Your task to perform on an android device: Open the stopwatch Image 0: 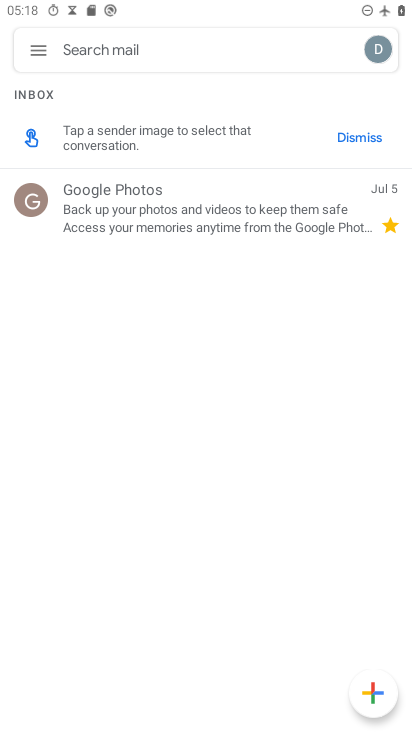
Step 0: press home button
Your task to perform on an android device: Open the stopwatch Image 1: 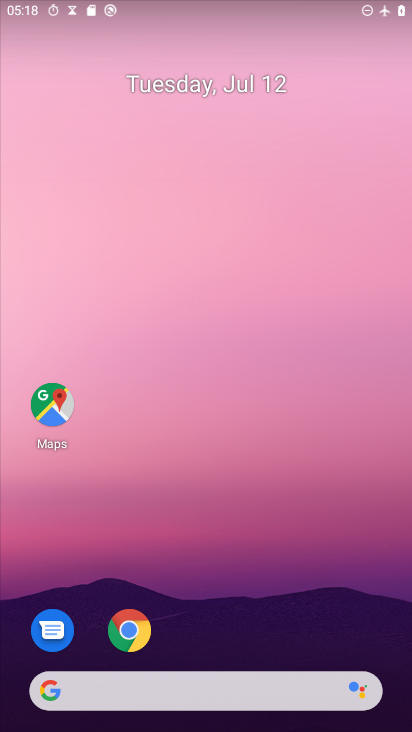
Step 1: drag from (190, 692) to (399, 25)
Your task to perform on an android device: Open the stopwatch Image 2: 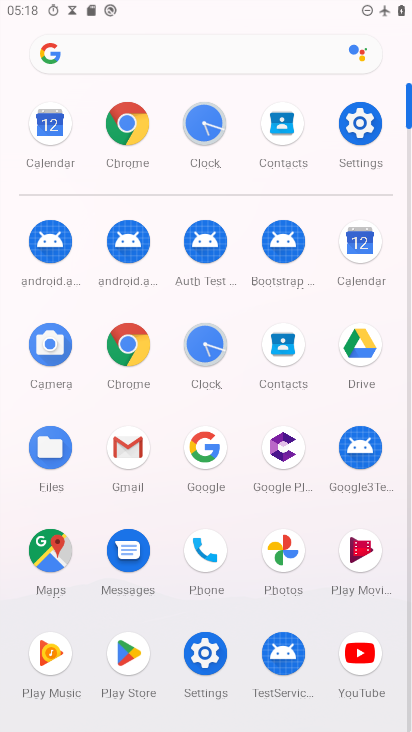
Step 2: click (206, 342)
Your task to perform on an android device: Open the stopwatch Image 3: 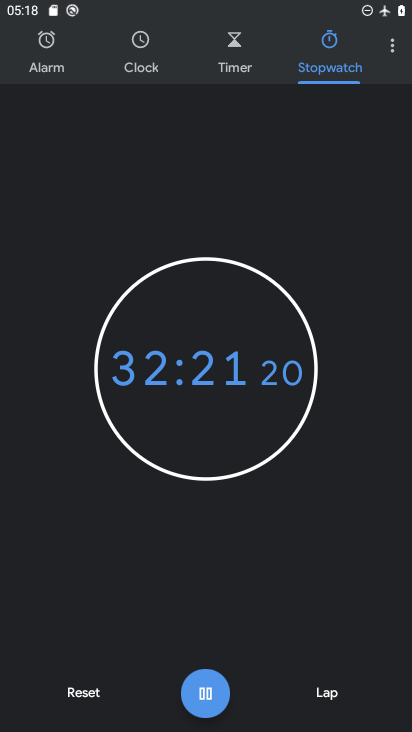
Step 3: task complete